Your task to perform on an android device: toggle pop-ups in chrome Image 0: 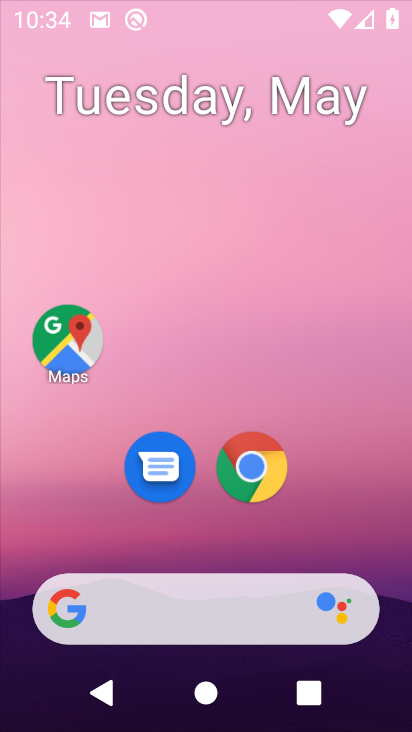
Step 0: drag from (408, 10) to (403, 558)
Your task to perform on an android device: toggle pop-ups in chrome Image 1: 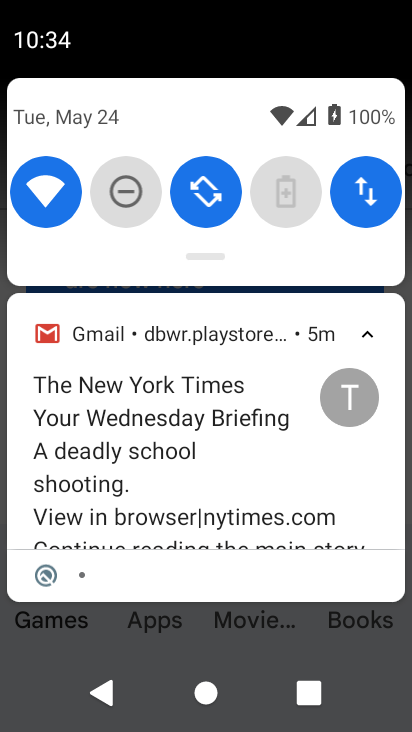
Step 1: press home button
Your task to perform on an android device: toggle pop-ups in chrome Image 2: 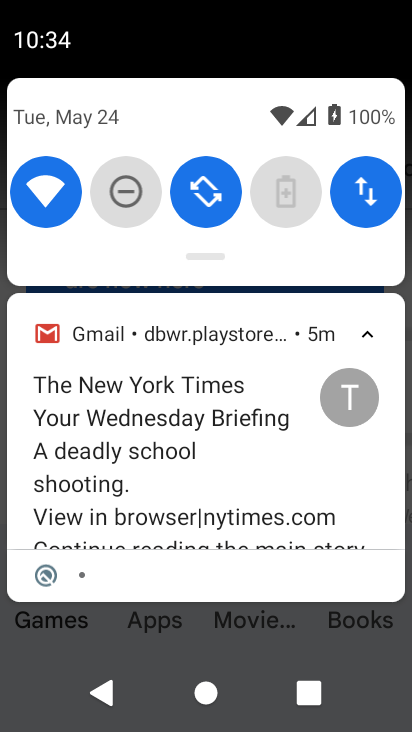
Step 2: press home button
Your task to perform on an android device: toggle pop-ups in chrome Image 3: 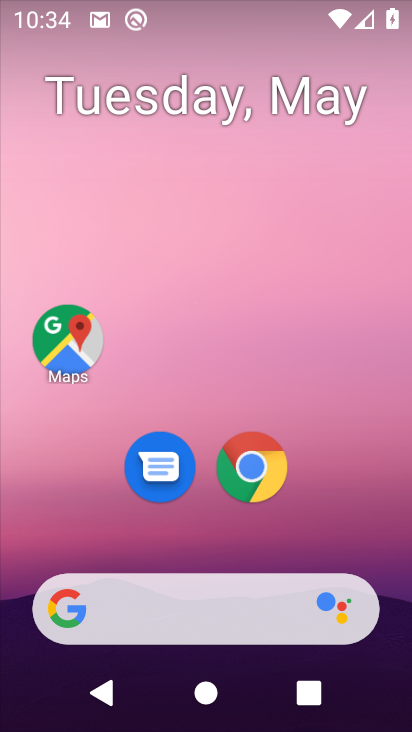
Step 3: drag from (218, 553) to (282, 103)
Your task to perform on an android device: toggle pop-ups in chrome Image 4: 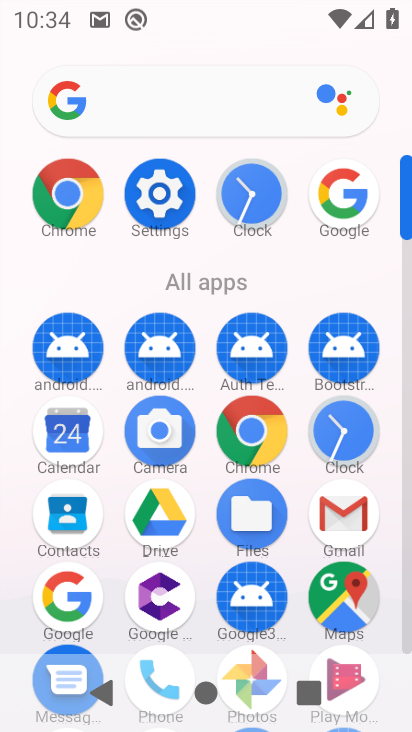
Step 4: click (246, 446)
Your task to perform on an android device: toggle pop-ups in chrome Image 5: 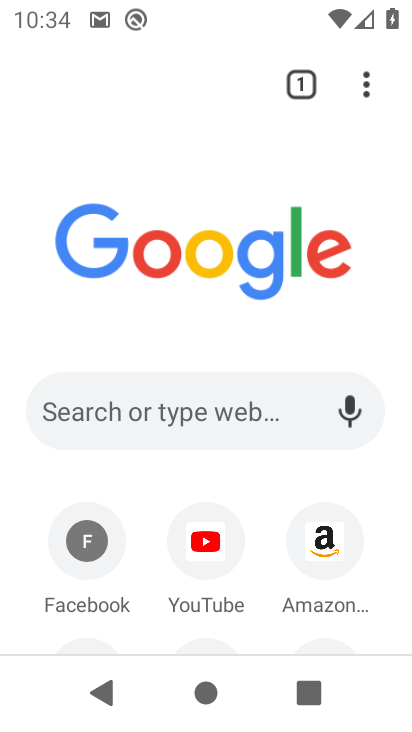
Step 5: click (358, 85)
Your task to perform on an android device: toggle pop-ups in chrome Image 6: 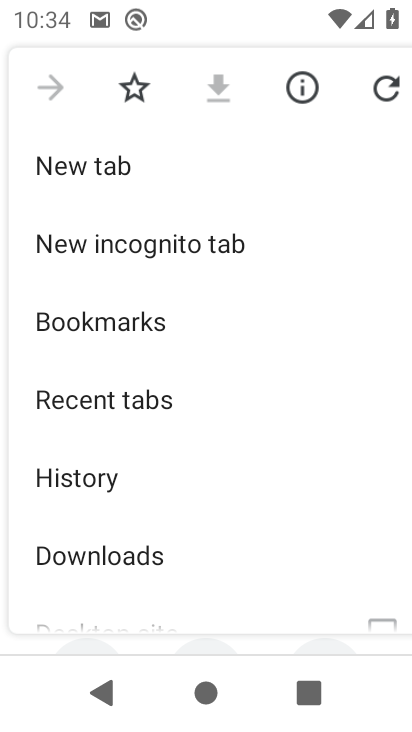
Step 6: drag from (175, 525) to (317, 130)
Your task to perform on an android device: toggle pop-ups in chrome Image 7: 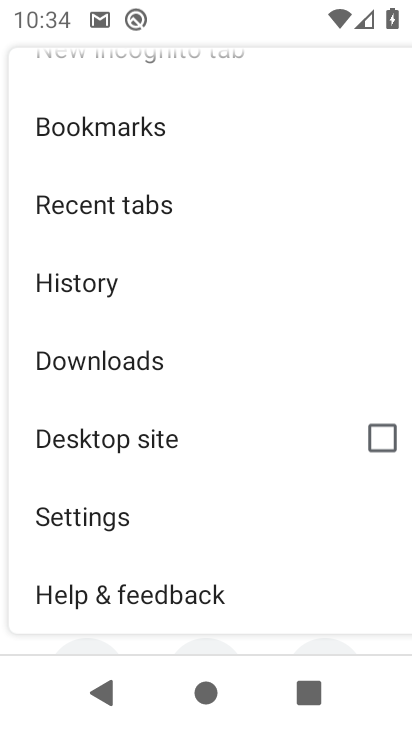
Step 7: click (140, 501)
Your task to perform on an android device: toggle pop-ups in chrome Image 8: 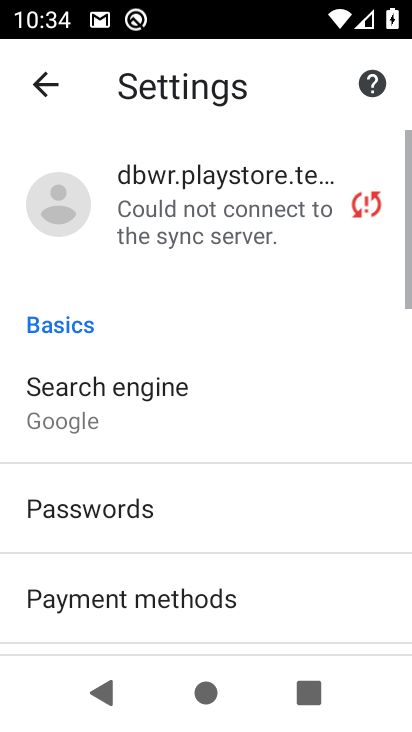
Step 8: drag from (187, 496) to (277, 96)
Your task to perform on an android device: toggle pop-ups in chrome Image 9: 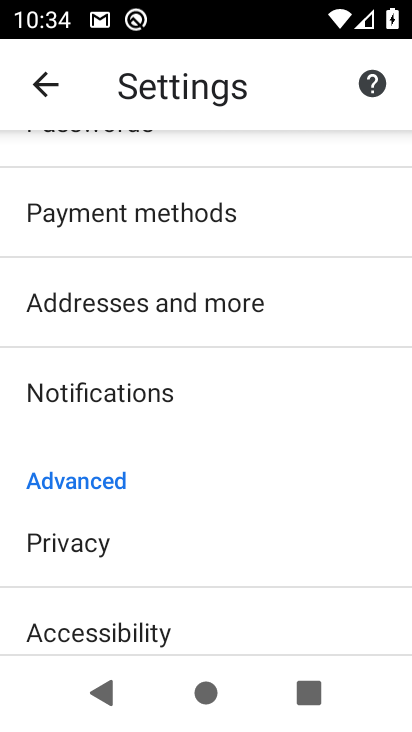
Step 9: drag from (184, 529) to (246, 236)
Your task to perform on an android device: toggle pop-ups in chrome Image 10: 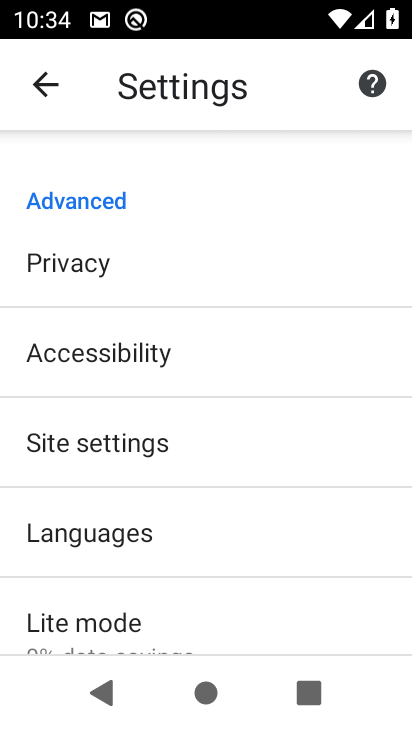
Step 10: click (180, 430)
Your task to perform on an android device: toggle pop-ups in chrome Image 11: 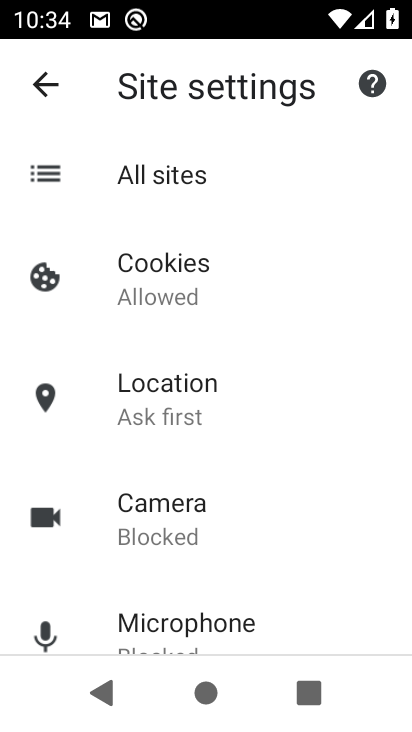
Step 11: drag from (230, 530) to (238, 254)
Your task to perform on an android device: toggle pop-ups in chrome Image 12: 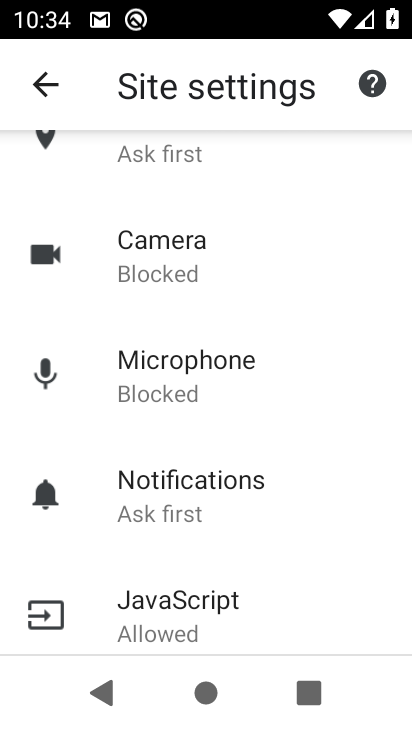
Step 12: drag from (180, 565) to (181, 133)
Your task to perform on an android device: toggle pop-ups in chrome Image 13: 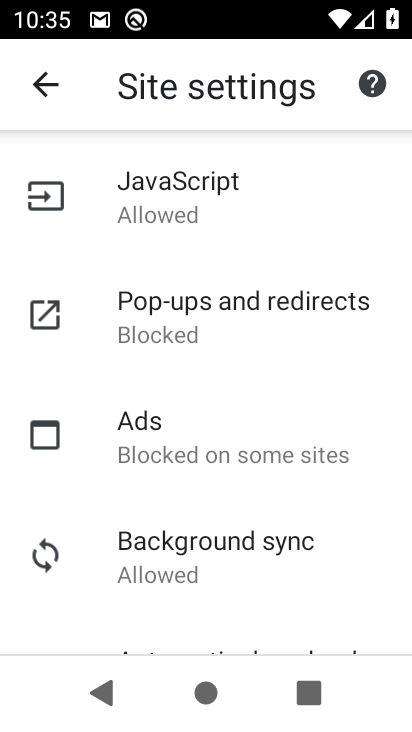
Step 13: click (230, 339)
Your task to perform on an android device: toggle pop-ups in chrome Image 14: 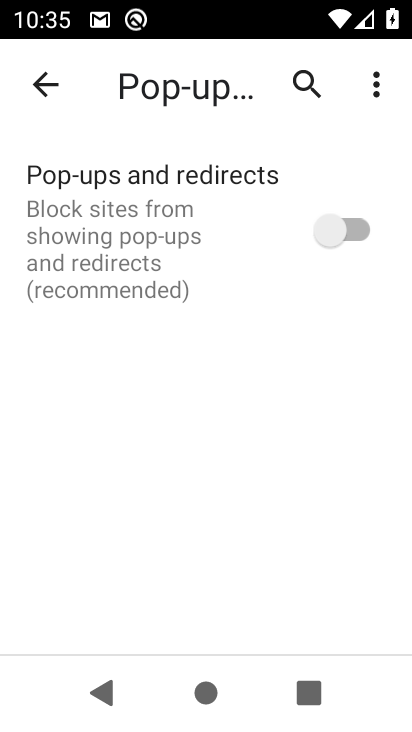
Step 14: drag from (213, 497) to (261, 264)
Your task to perform on an android device: toggle pop-ups in chrome Image 15: 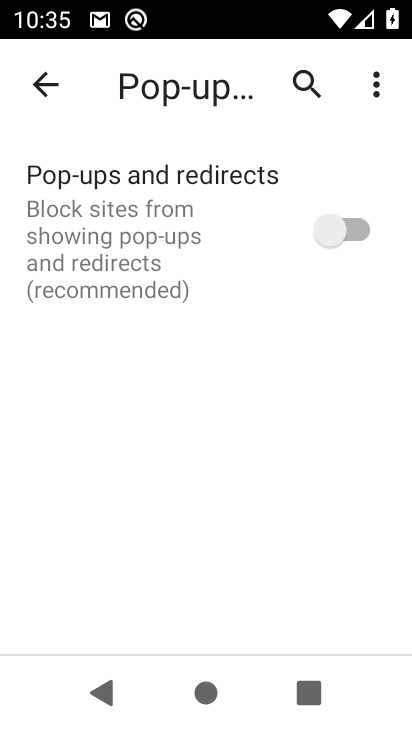
Step 15: click (325, 224)
Your task to perform on an android device: toggle pop-ups in chrome Image 16: 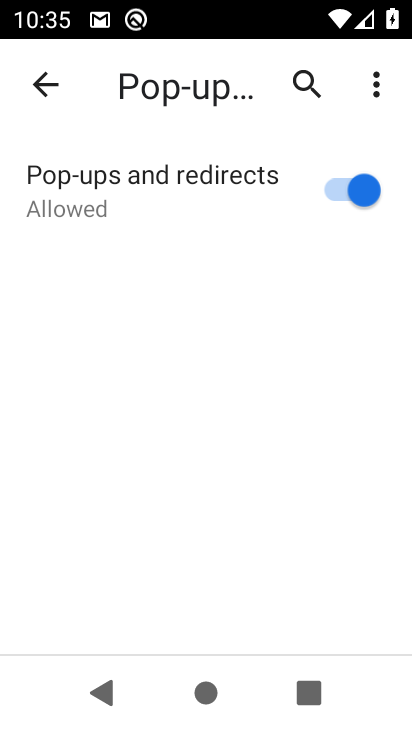
Step 16: task complete